Your task to perform on an android device: add a contact Image 0: 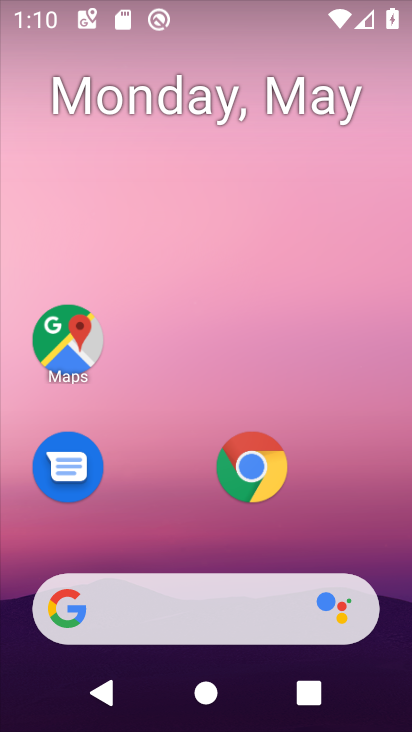
Step 0: drag from (228, 525) to (300, 124)
Your task to perform on an android device: add a contact Image 1: 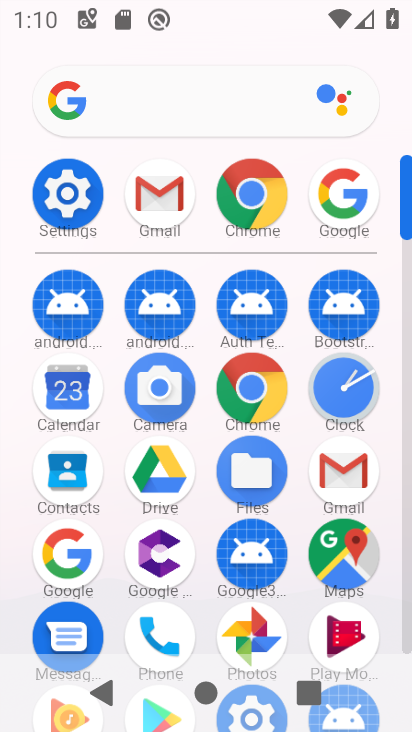
Step 1: click (52, 465)
Your task to perform on an android device: add a contact Image 2: 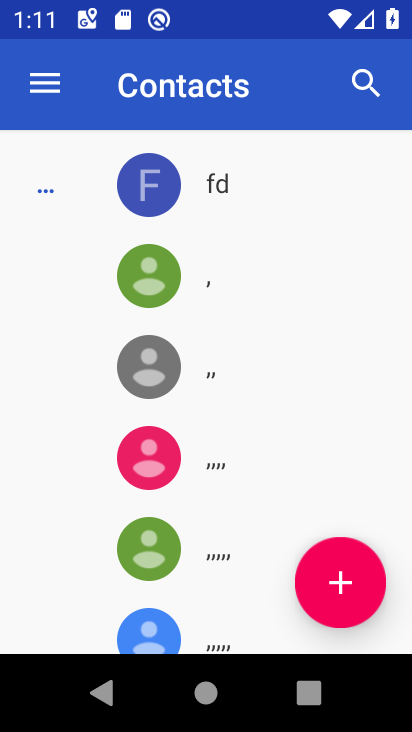
Step 2: drag from (221, 561) to (252, 217)
Your task to perform on an android device: add a contact Image 3: 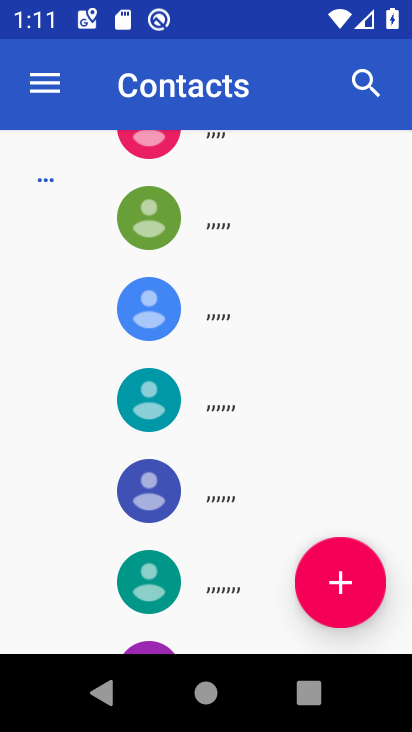
Step 3: click (329, 562)
Your task to perform on an android device: add a contact Image 4: 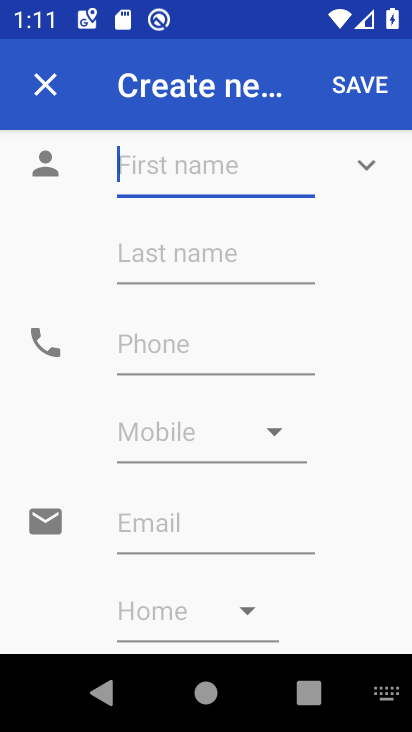
Step 4: click (189, 172)
Your task to perform on an android device: add a contact Image 5: 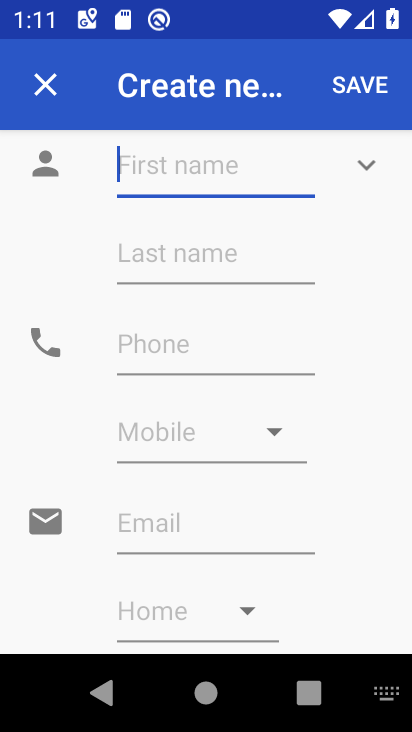
Step 5: type "mhnbv"
Your task to perform on an android device: add a contact Image 6: 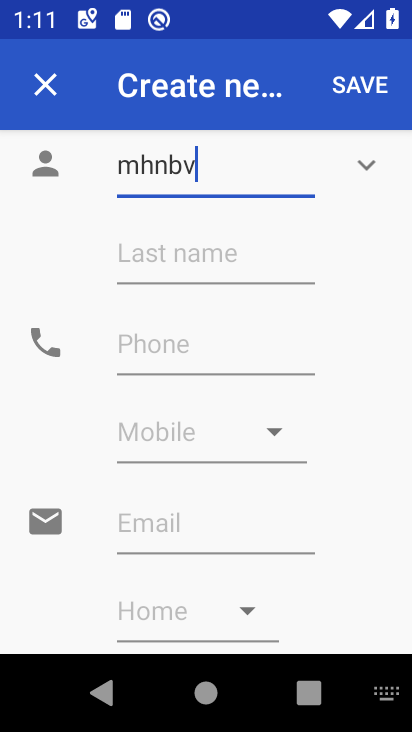
Step 6: click (360, 87)
Your task to perform on an android device: add a contact Image 7: 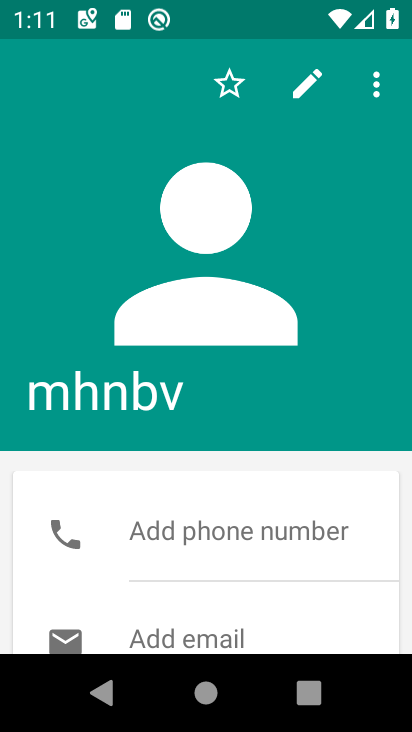
Step 7: task complete